Your task to perform on an android device: change the upload size in google photos Image 0: 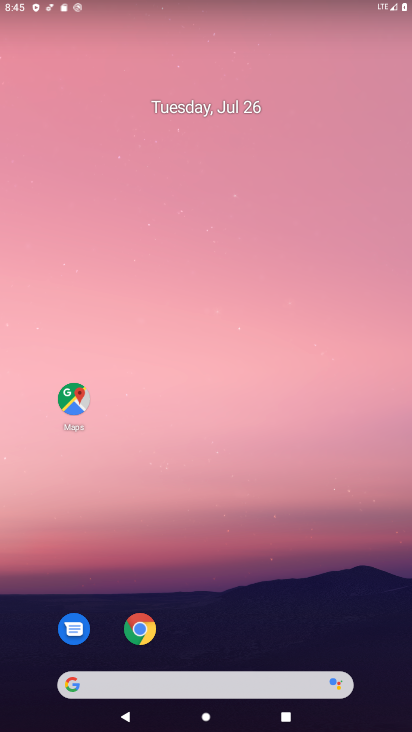
Step 0: drag from (195, 673) to (198, 89)
Your task to perform on an android device: change the upload size in google photos Image 1: 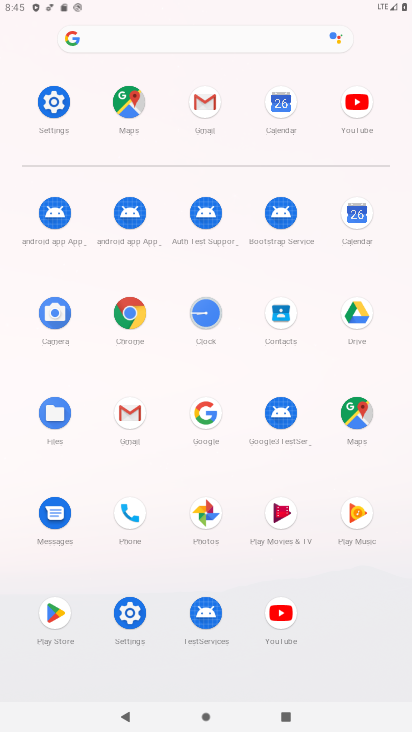
Step 1: click (207, 526)
Your task to perform on an android device: change the upload size in google photos Image 2: 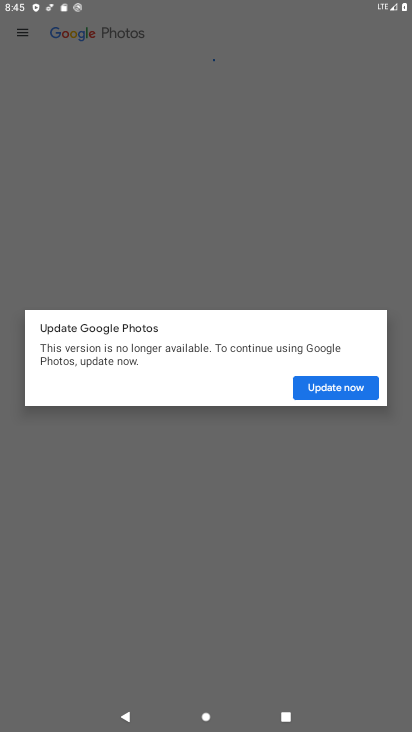
Step 2: press home button
Your task to perform on an android device: change the upload size in google photos Image 3: 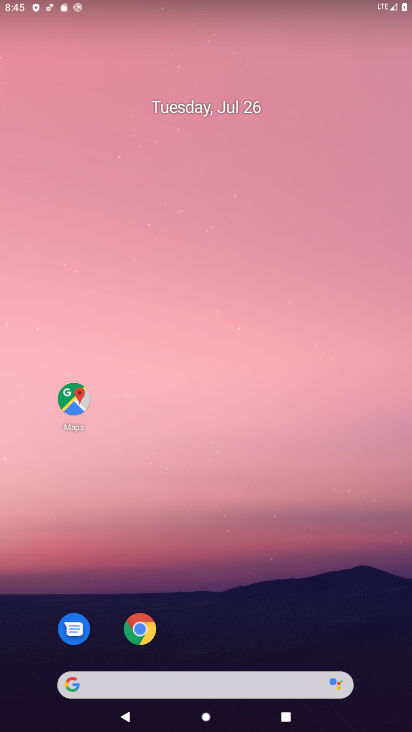
Step 3: drag from (203, 670) to (214, 37)
Your task to perform on an android device: change the upload size in google photos Image 4: 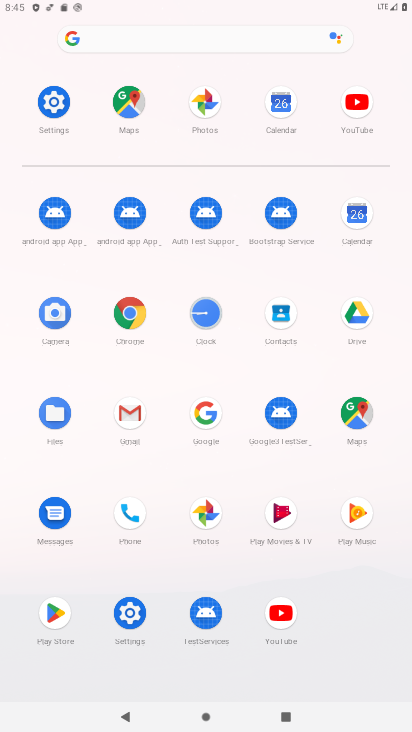
Step 4: click (200, 519)
Your task to perform on an android device: change the upload size in google photos Image 5: 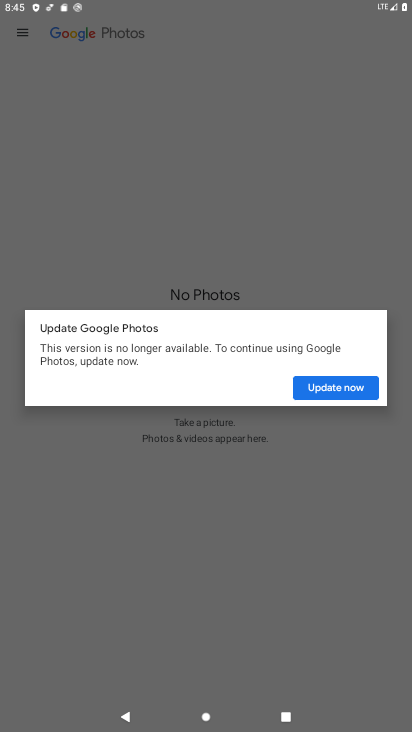
Step 5: click (334, 389)
Your task to perform on an android device: change the upload size in google photos Image 6: 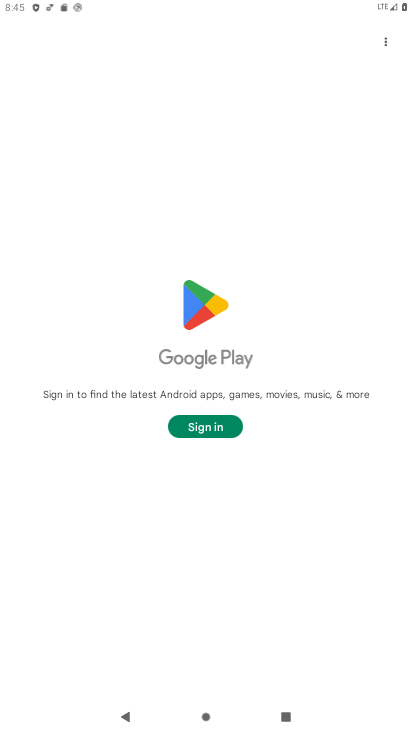
Step 6: task complete